Your task to perform on an android device: turn on showing notifications on the lock screen Image 0: 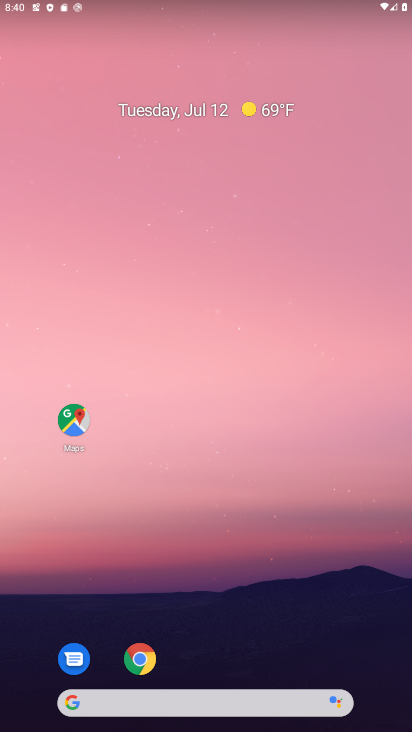
Step 0: drag from (233, 699) to (259, 169)
Your task to perform on an android device: turn on showing notifications on the lock screen Image 1: 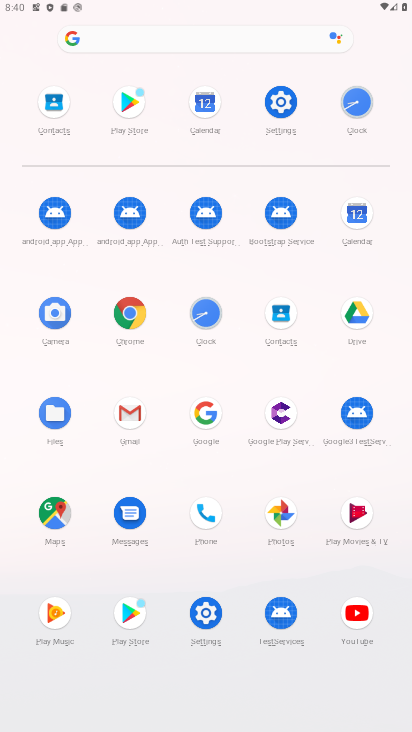
Step 1: click (280, 102)
Your task to perform on an android device: turn on showing notifications on the lock screen Image 2: 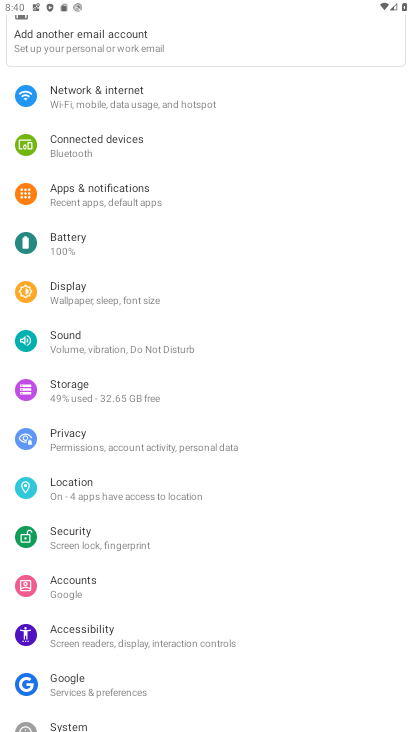
Step 2: click (92, 195)
Your task to perform on an android device: turn on showing notifications on the lock screen Image 3: 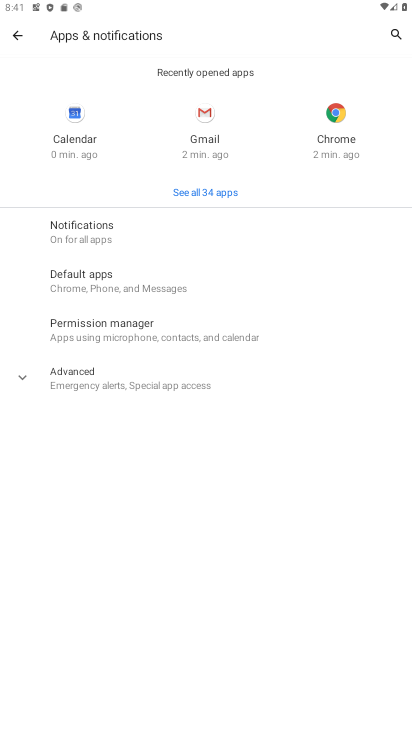
Step 3: click (78, 227)
Your task to perform on an android device: turn on showing notifications on the lock screen Image 4: 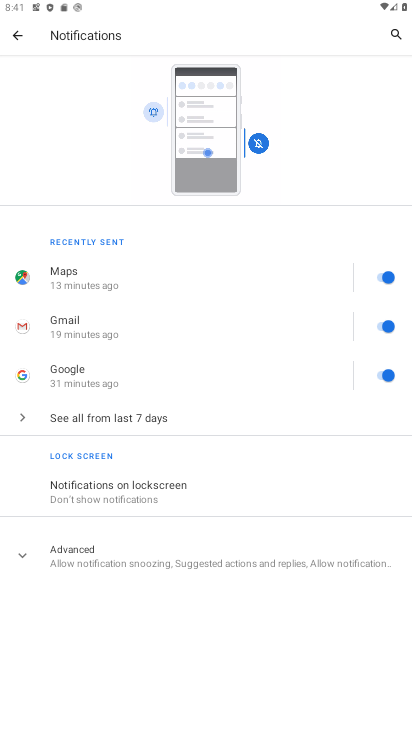
Step 4: click (106, 488)
Your task to perform on an android device: turn on showing notifications on the lock screen Image 5: 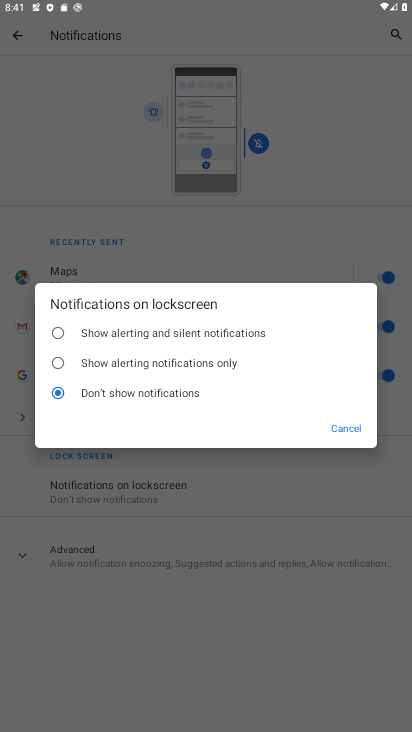
Step 5: click (60, 326)
Your task to perform on an android device: turn on showing notifications on the lock screen Image 6: 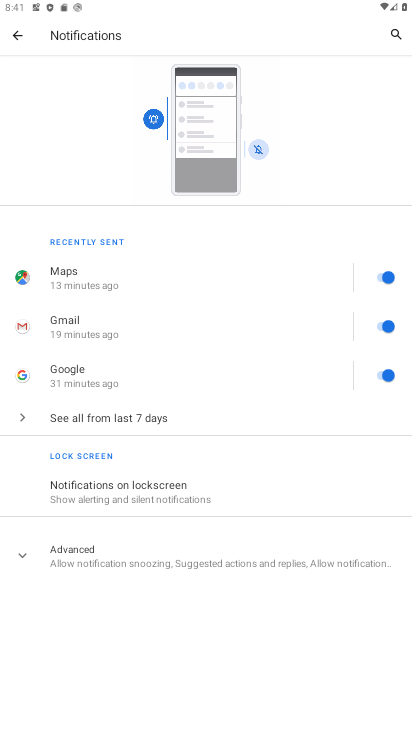
Step 6: task complete